Your task to perform on an android device: Clear the shopping cart on target. Search for "acer predator" on target, select the first entry, add it to the cart, then select checkout. Image 0: 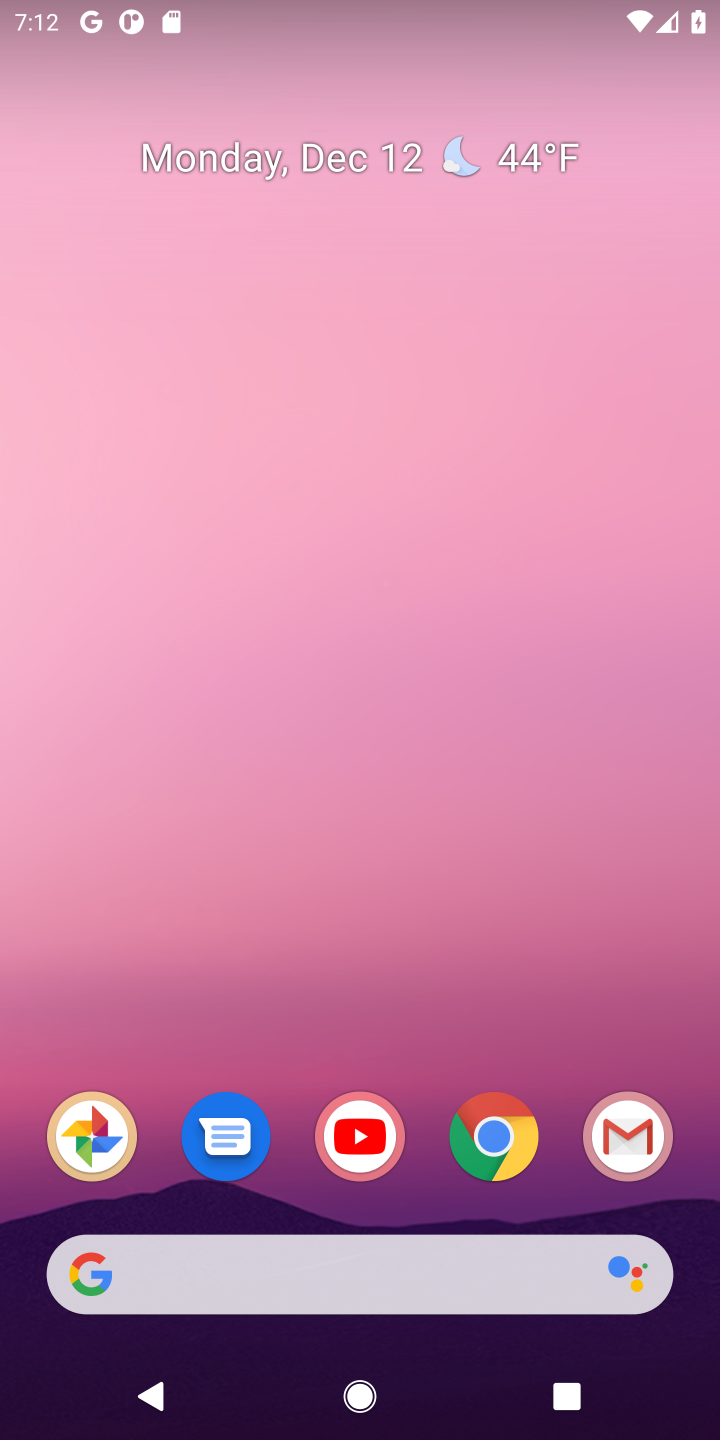
Step 0: click (487, 1132)
Your task to perform on an android device: Clear the shopping cart on target. Search for "acer predator" on target, select the first entry, add it to the cart, then select checkout. Image 1: 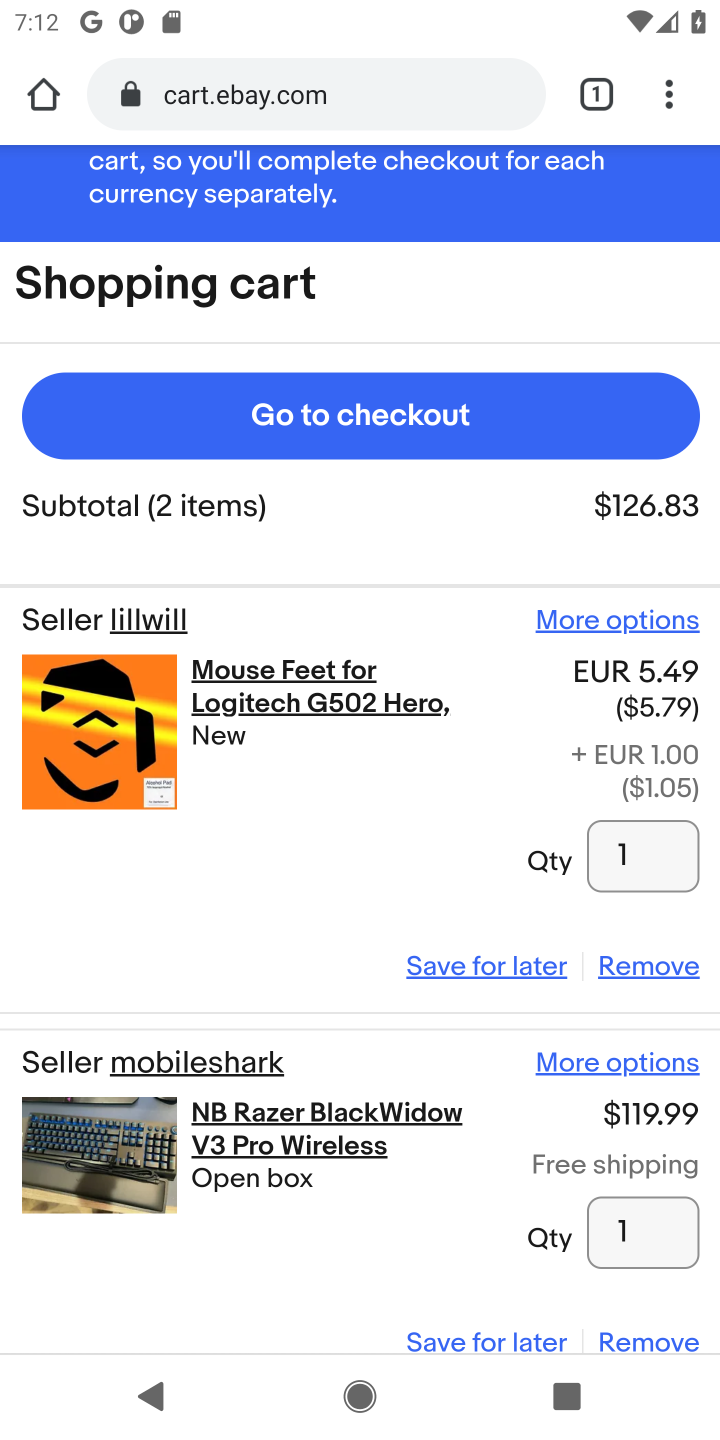
Step 1: click (268, 93)
Your task to perform on an android device: Clear the shopping cart on target. Search for "acer predator" on target, select the first entry, add it to the cart, then select checkout. Image 2: 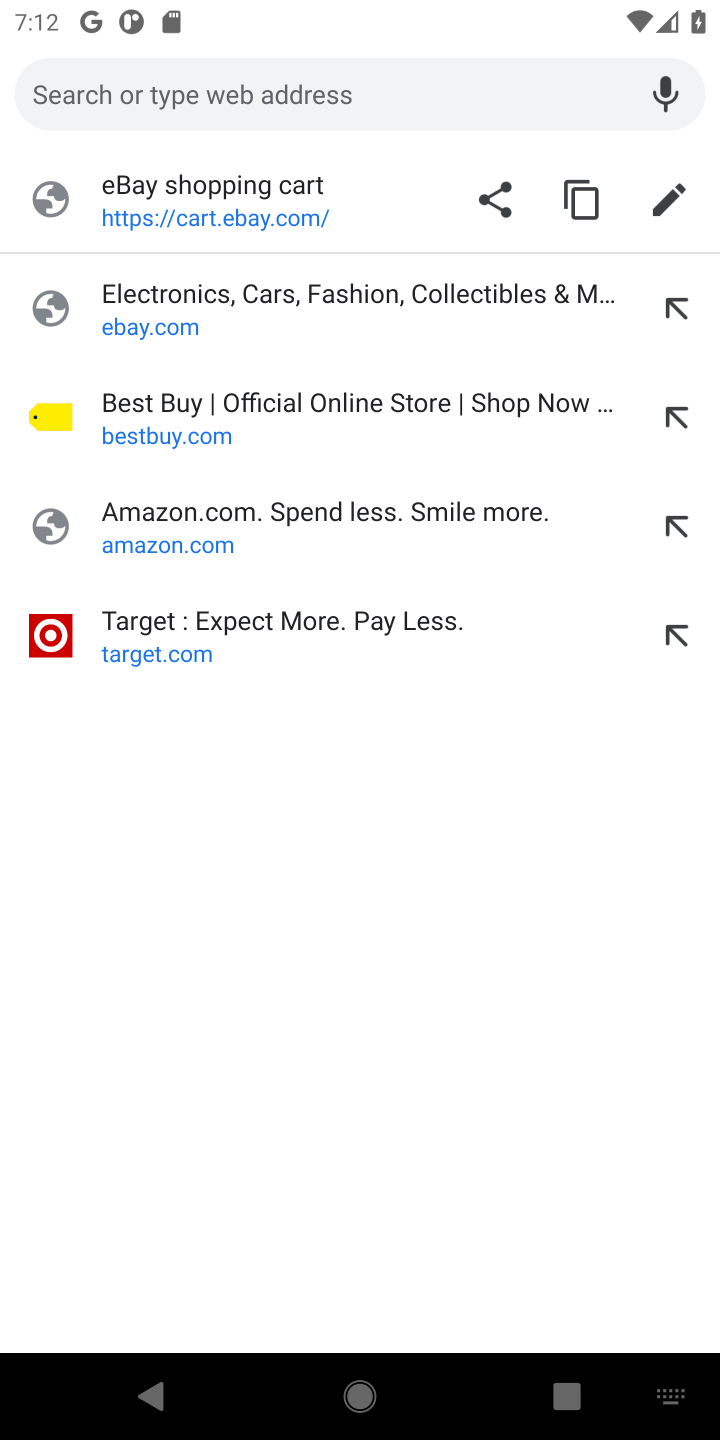
Step 2: click (137, 661)
Your task to perform on an android device: Clear the shopping cart on target. Search for "acer predator" on target, select the first entry, add it to the cart, then select checkout. Image 3: 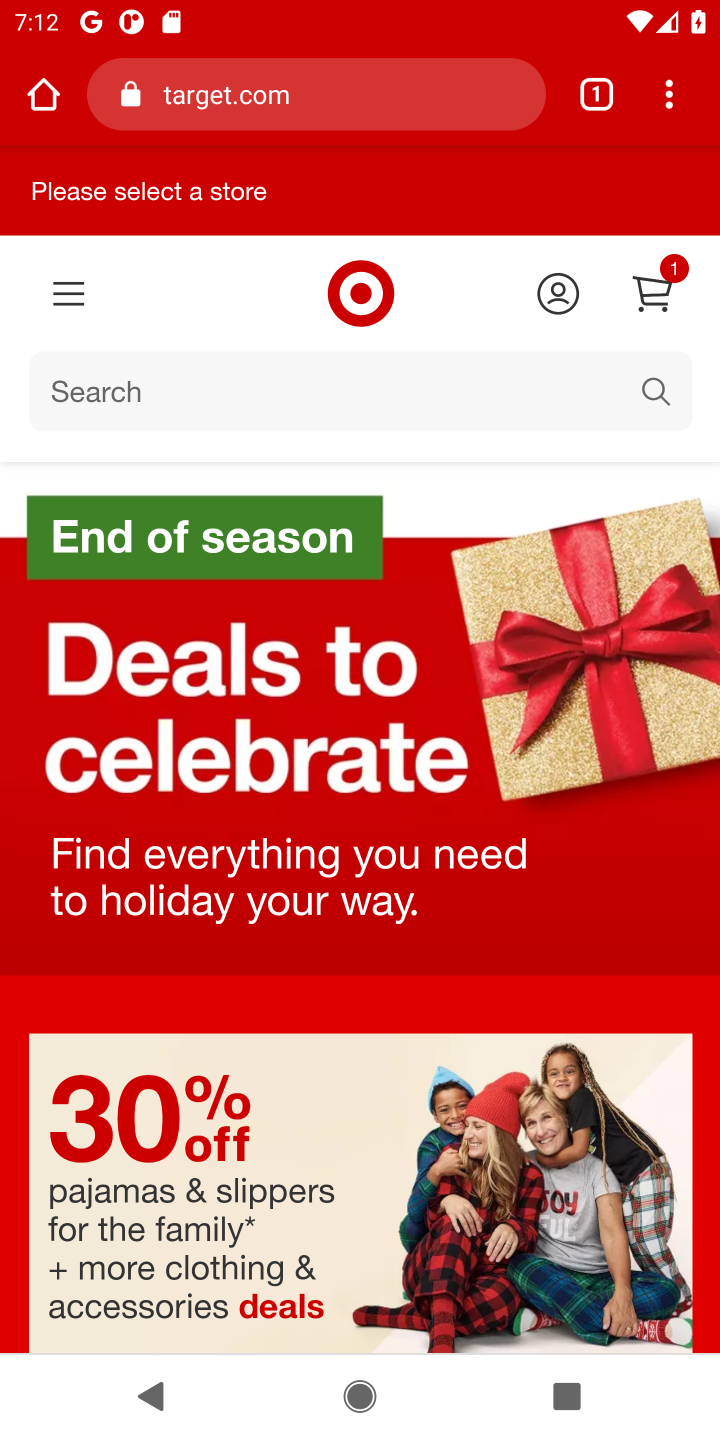
Step 3: click (669, 284)
Your task to perform on an android device: Clear the shopping cart on target. Search for "acer predator" on target, select the first entry, add it to the cart, then select checkout. Image 4: 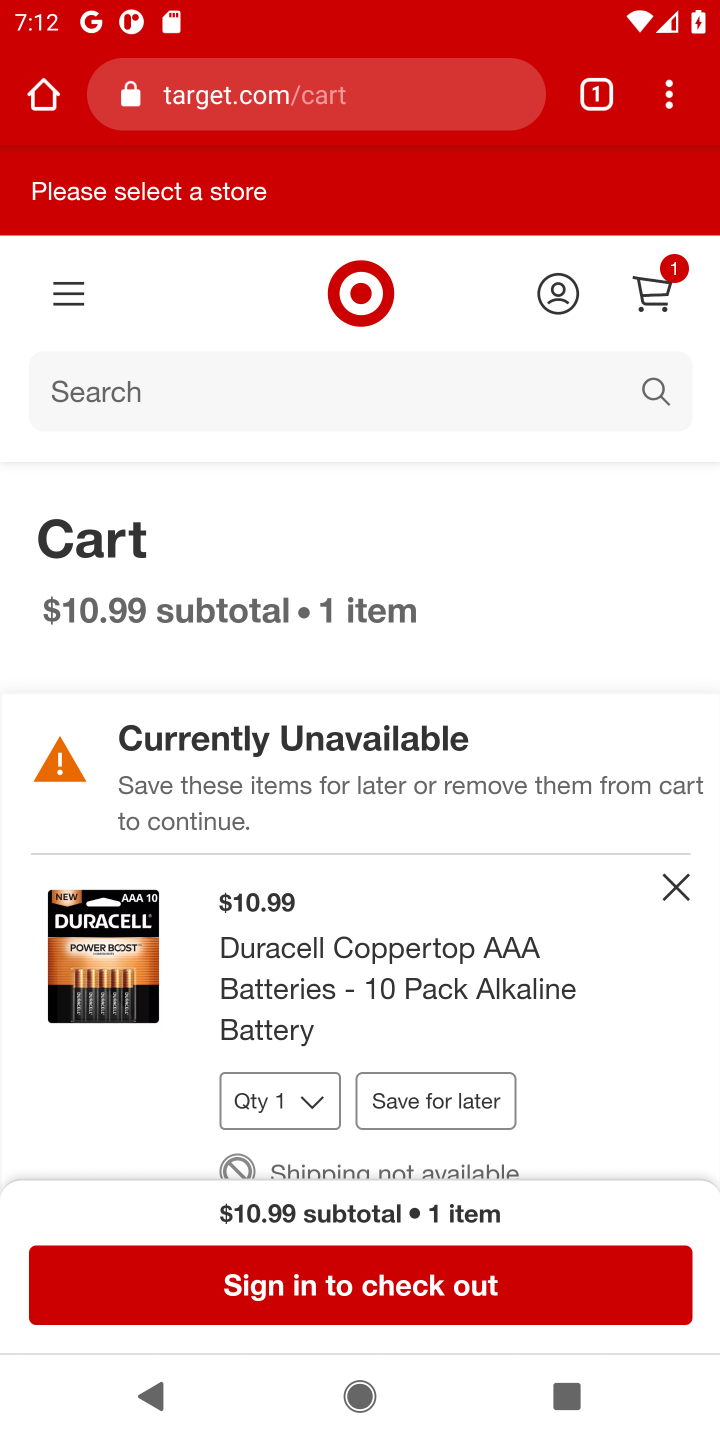
Step 4: click (685, 899)
Your task to perform on an android device: Clear the shopping cart on target. Search for "acer predator" on target, select the first entry, add it to the cart, then select checkout. Image 5: 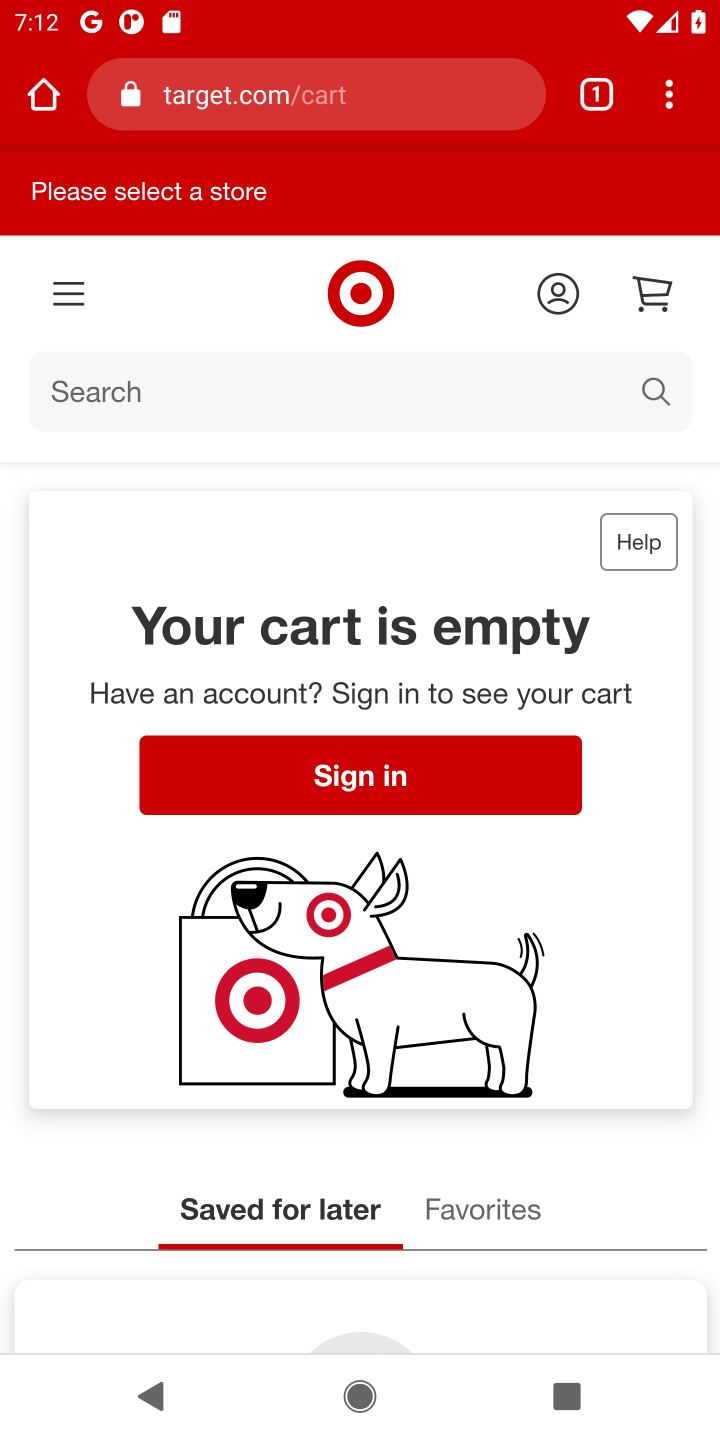
Step 5: click (50, 388)
Your task to perform on an android device: Clear the shopping cart on target. Search for "acer predator" on target, select the first entry, add it to the cart, then select checkout. Image 6: 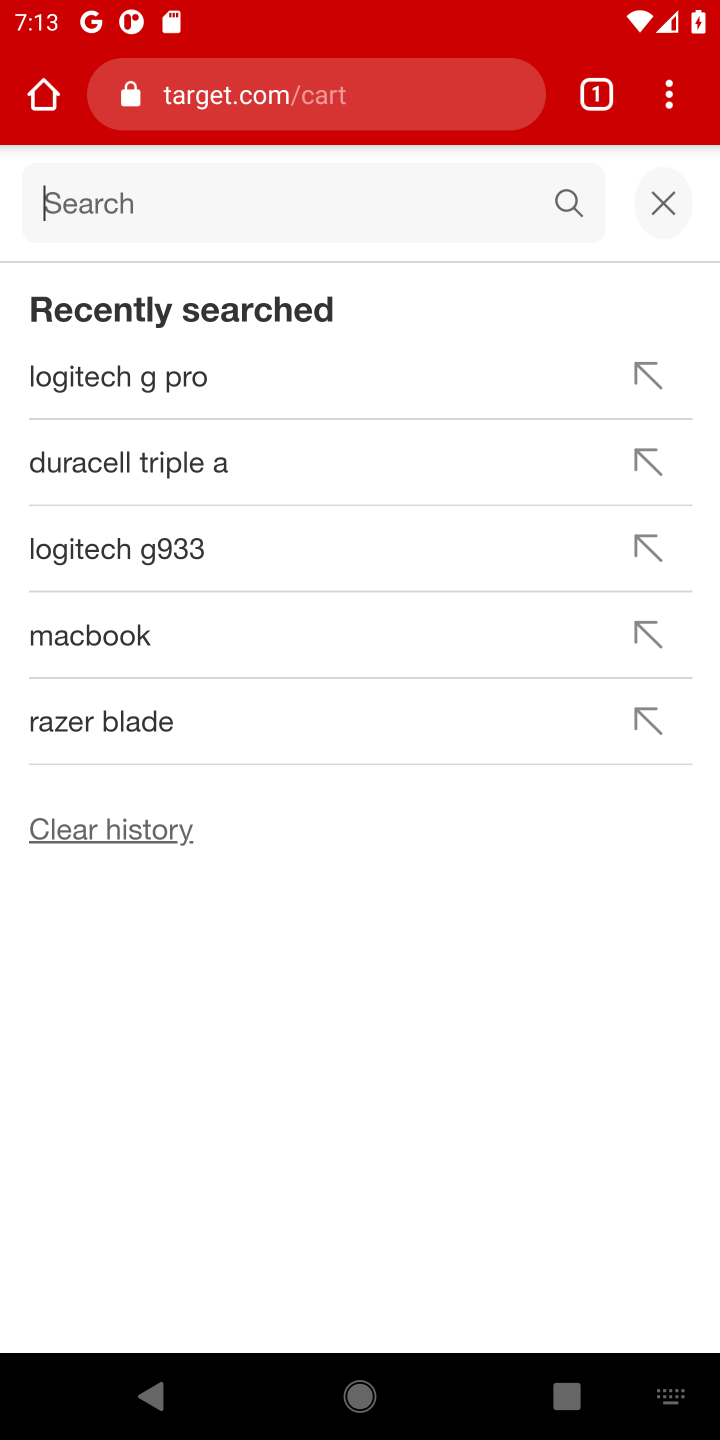
Step 6: type "acer predator"
Your task to perform on an android device: Clear the shopping cart on target. Search for "acer predator" on target, select the first entry, add it to the cart, then select checkout. Image 7: 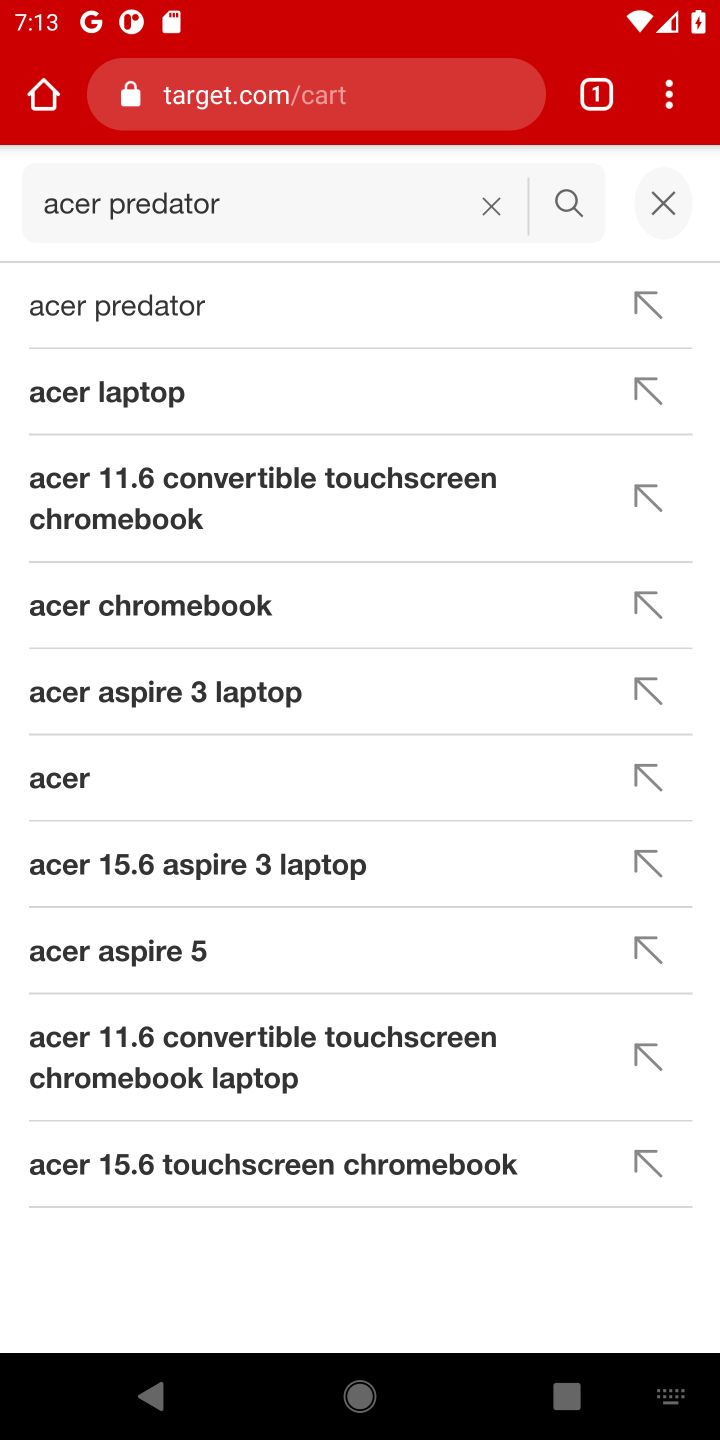
Step 7: click (172, 316)
Your task to perform on an android device: Clear the shopping cart on target. Search for "acer predator" on target, select the first entry, add it to the cart, then select checkout. Image 8: 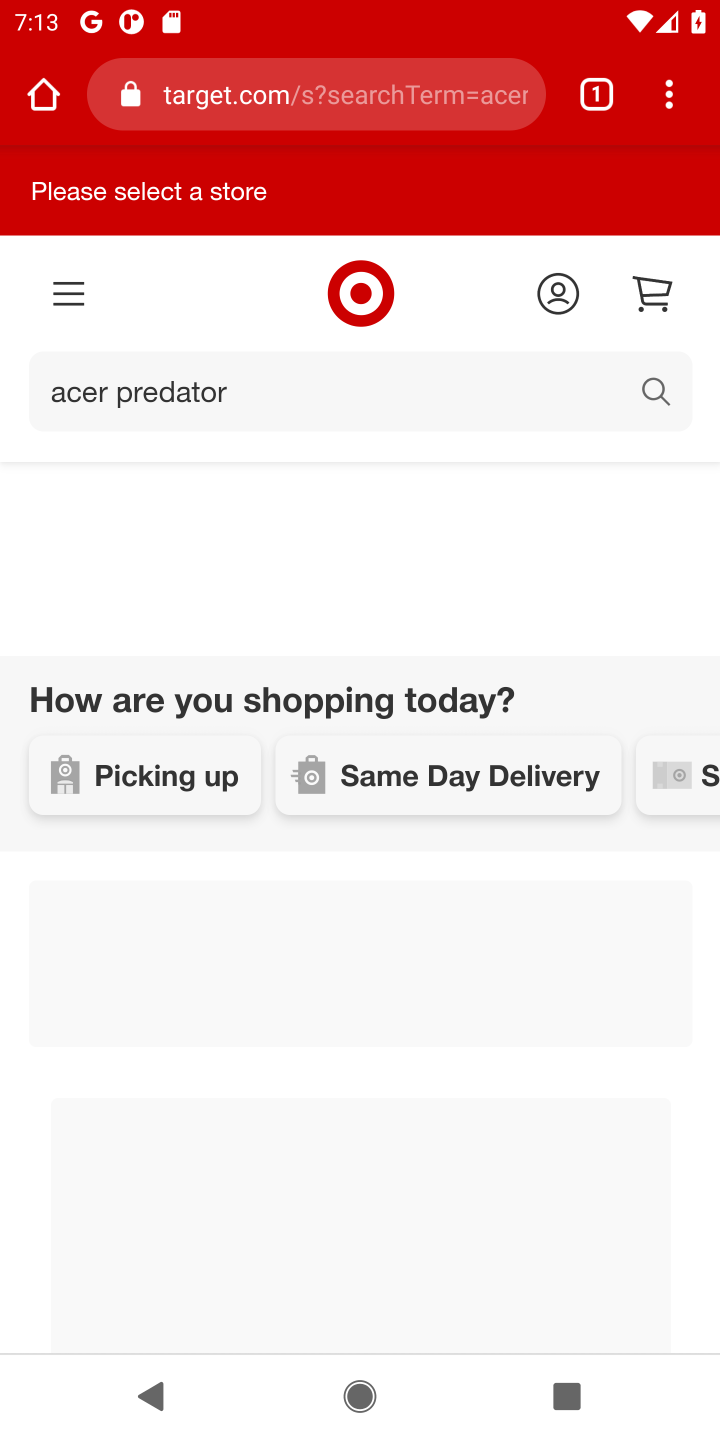
Step 8: drag from (276, 1139) to (332, 497)
Your task to perform on an android device: Clear the shopping cart on target. Search for "acer predator" on target, select the first entry, add it to the cart, then select checkout. Image 9: 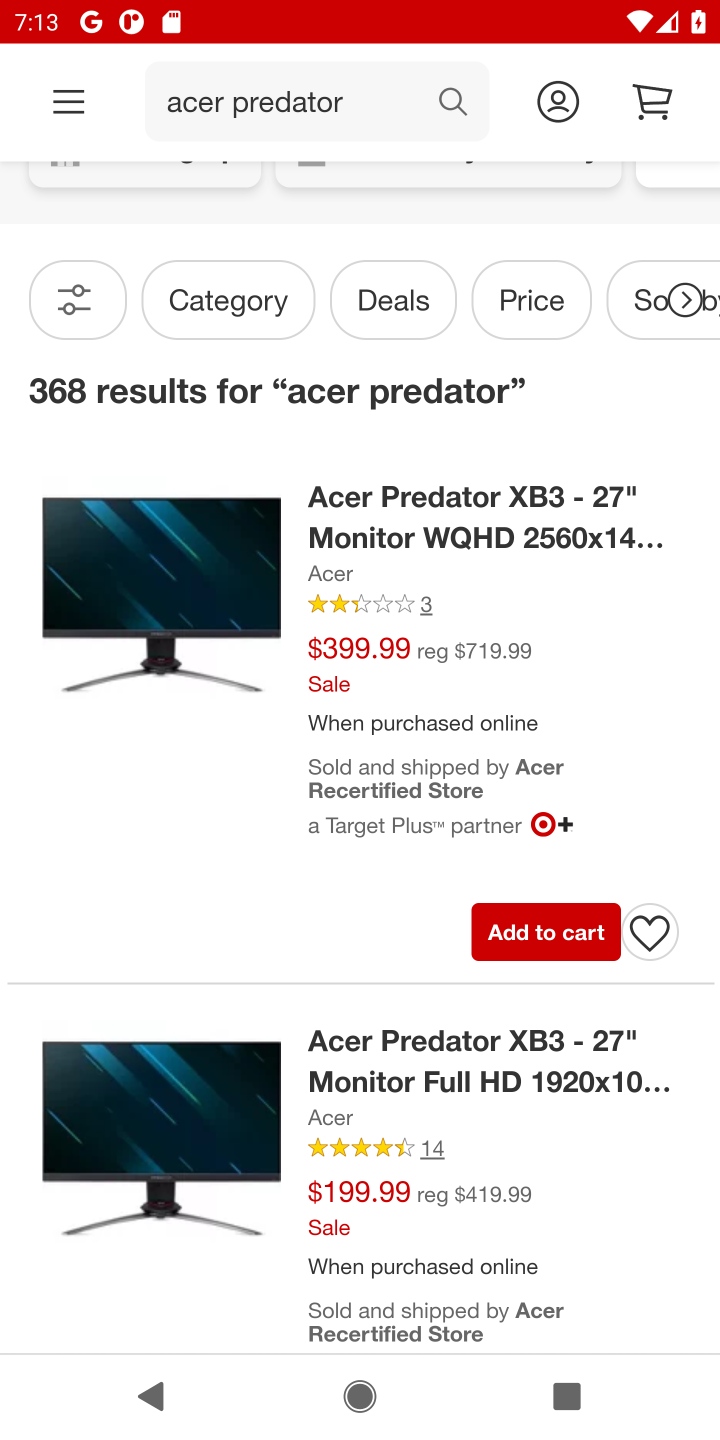
Step 9: click (518, 941)
Your task to perform on an android device: Clear the shopping cart on target. Search for "acer predator" on target, select the first entry, add it to the cart, then select checkout. Image 10: 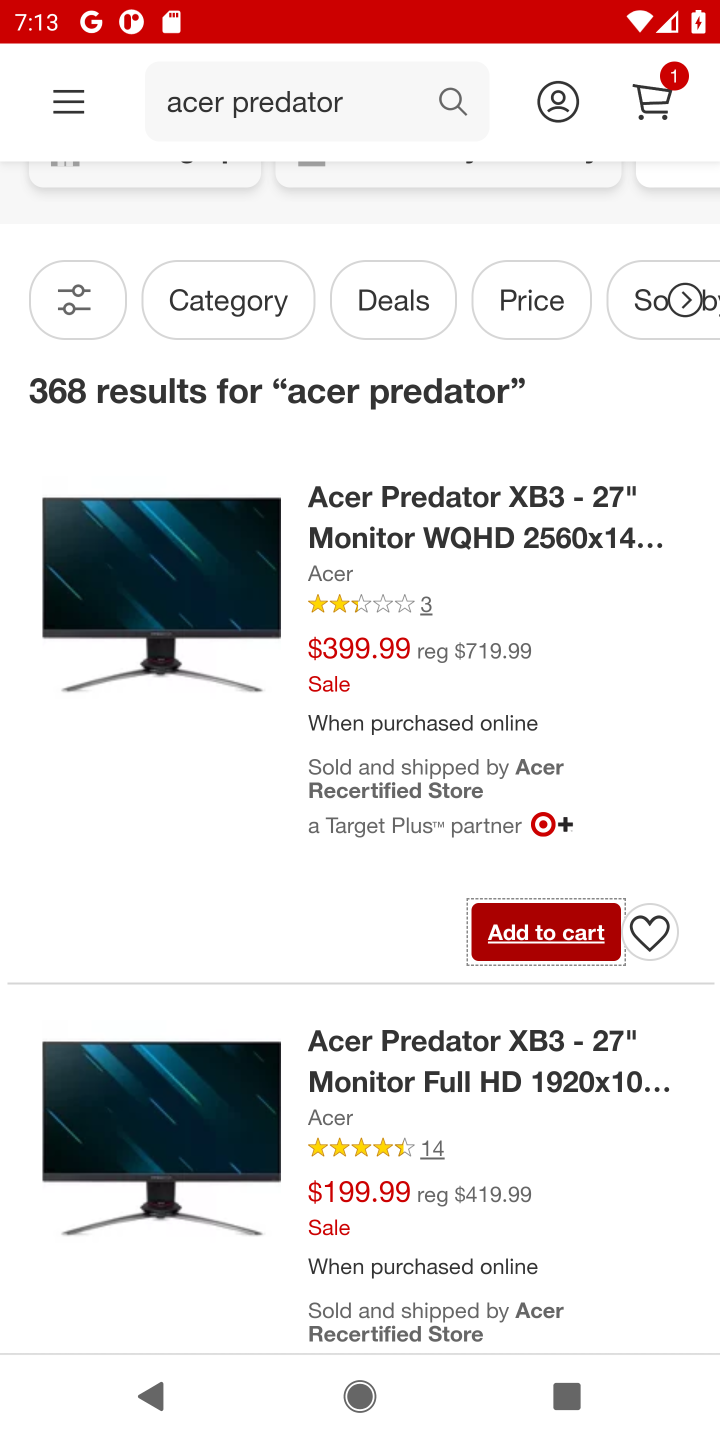
Step 10: click (659, 89)
Your task to perform on an android device: Clear the shopping cart on target. Search for "acer predator" on target, select the first entry, add it to the cart, then select checkout. Image 11: 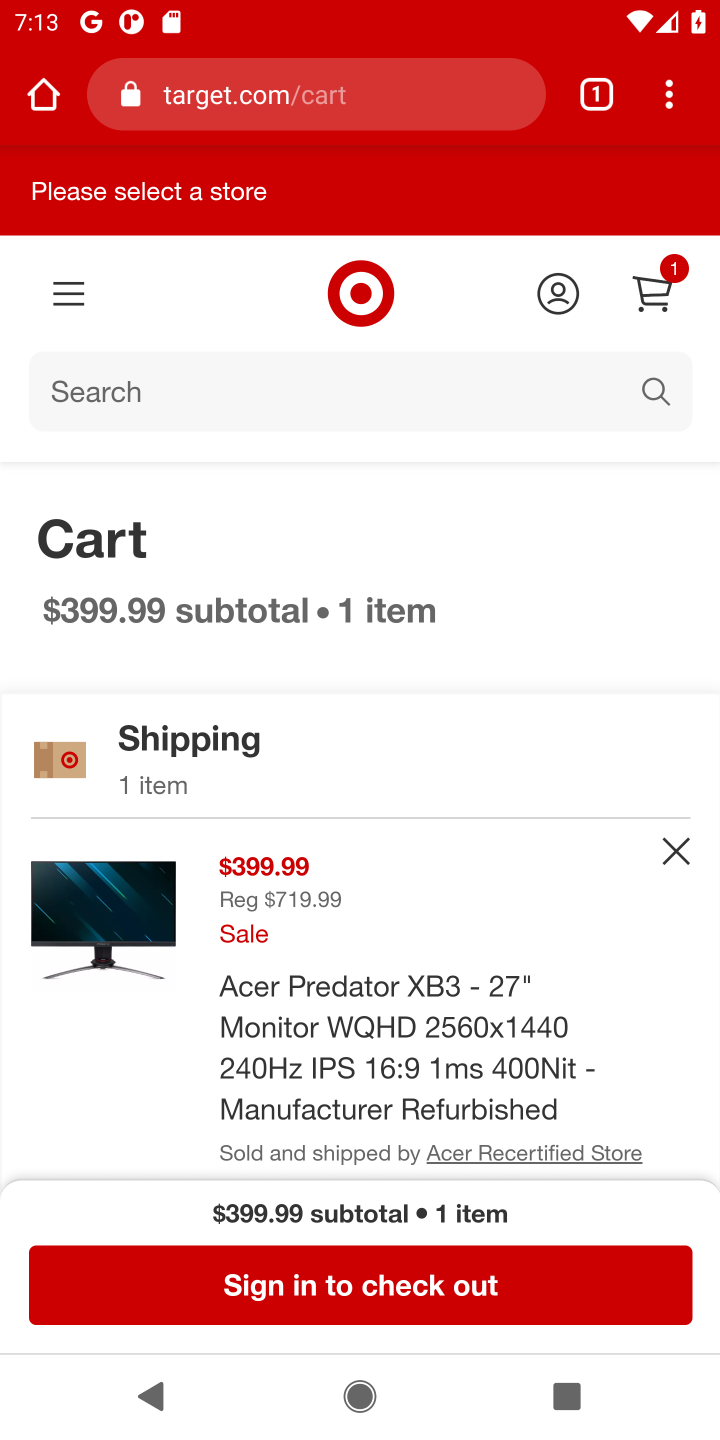
Step 11: click (464, 1297)
Your task to perform on an android device: Clear the shopping cart on target. Search for "acer predator" on target, select the first entry, add it to the cart, then select checkout. Image 12: 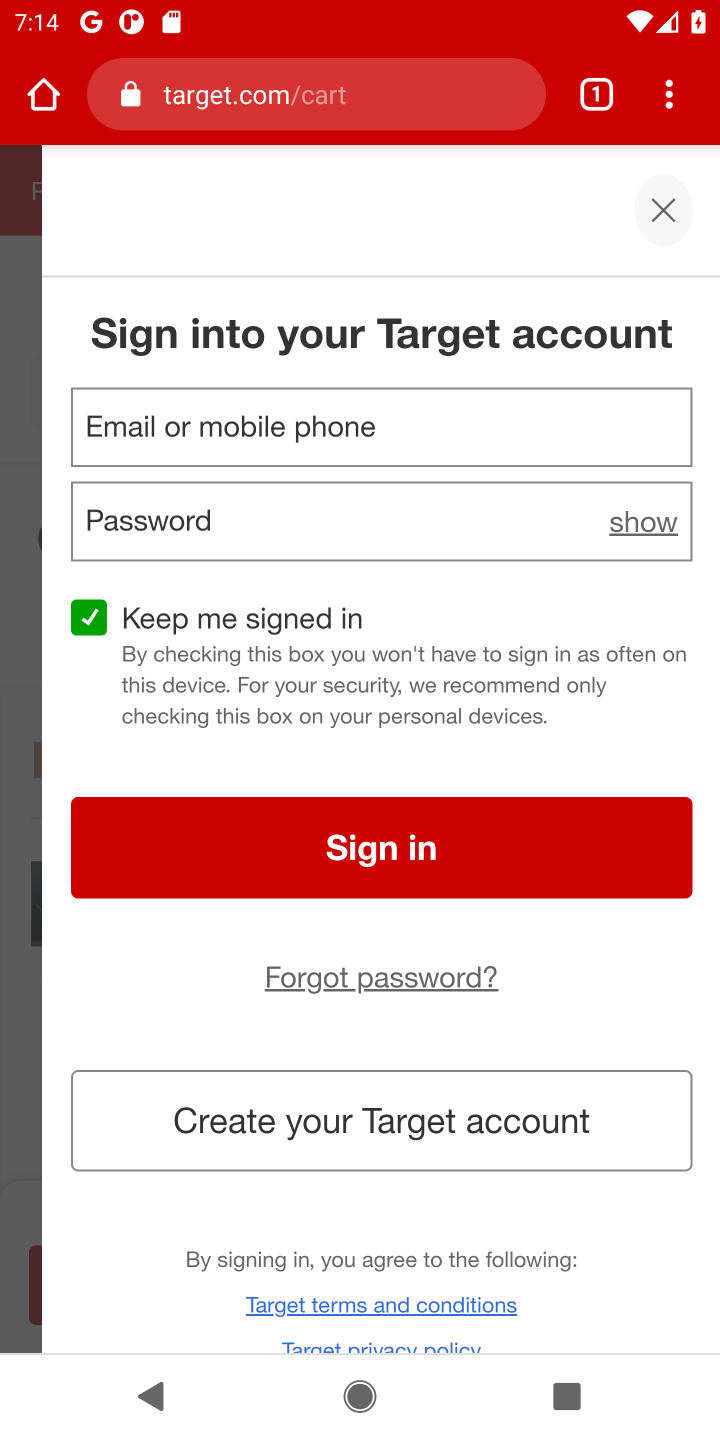
Step 12: task complete